Your task to perform on an android device: Search for sushi restaurants on Maps Image 0: 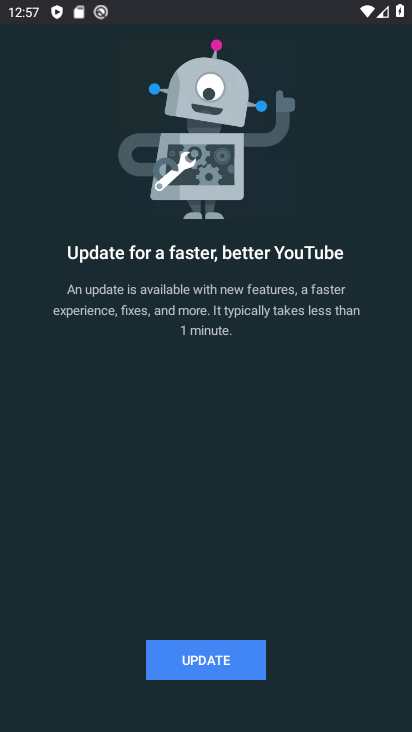
Step 0: press home button
Your task to perform on an android device: Search for sushi restaurants on Maps Image 1: 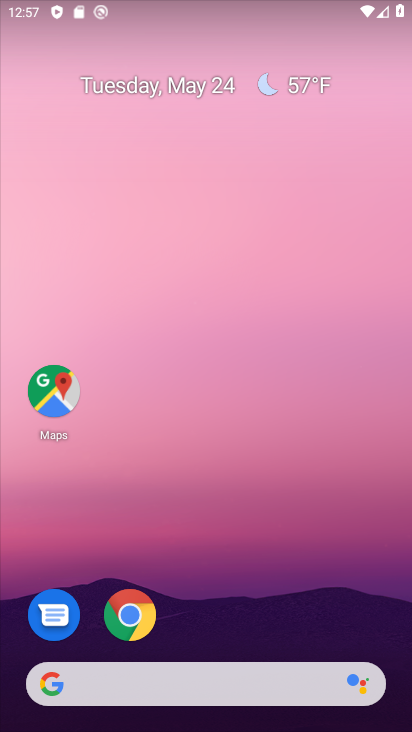
Step 1: click (52, 386)
Your task to perform on an android device: Search for sushi restaurants on Maps Image 2: 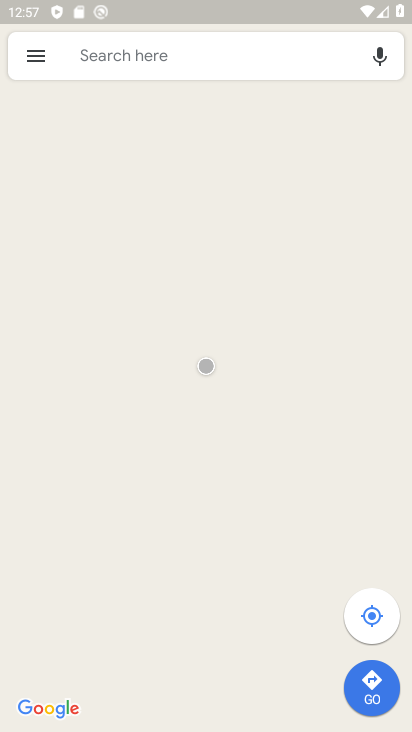
Step 2: click (124, 63)
Your task to perform on an android device: Search for sushi restaurants on Maps Image 3: 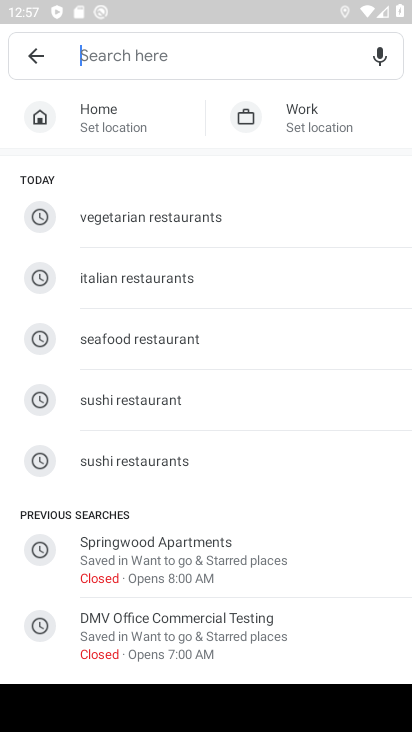
Step 3: click (131, 399)
Your task to perform on an android device: Search for sushi restaurants on Maps Image 4: 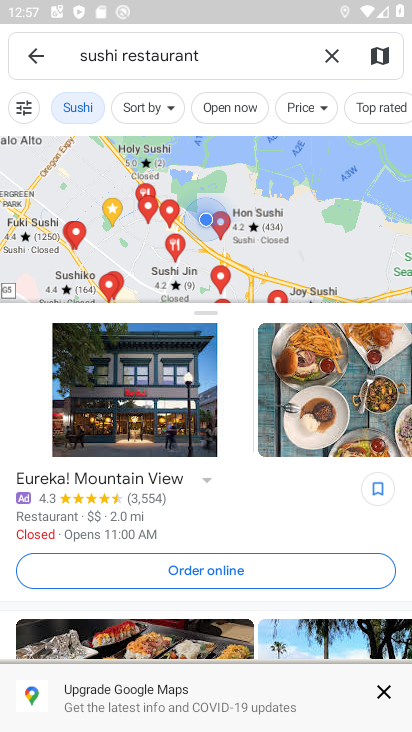
Step 4: task complete